Your task to perform on an android device: move an email to a new category in the gmail app Image 0: 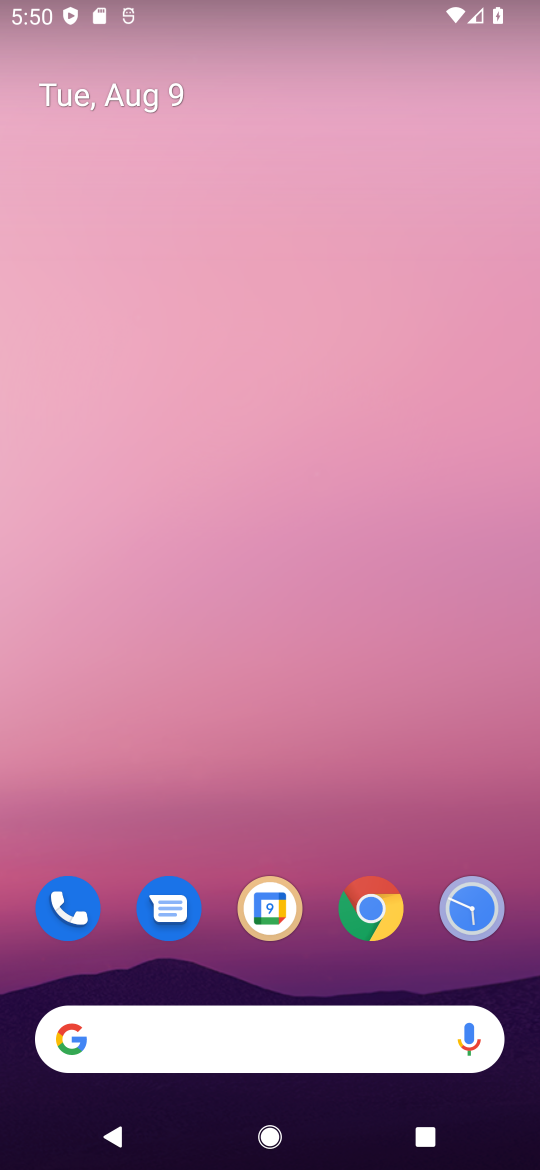
Step 0: drag from (304, 734) to (291, 16)
Your task to perform on an android device: move an email to a new category in the gmail app Image 1: 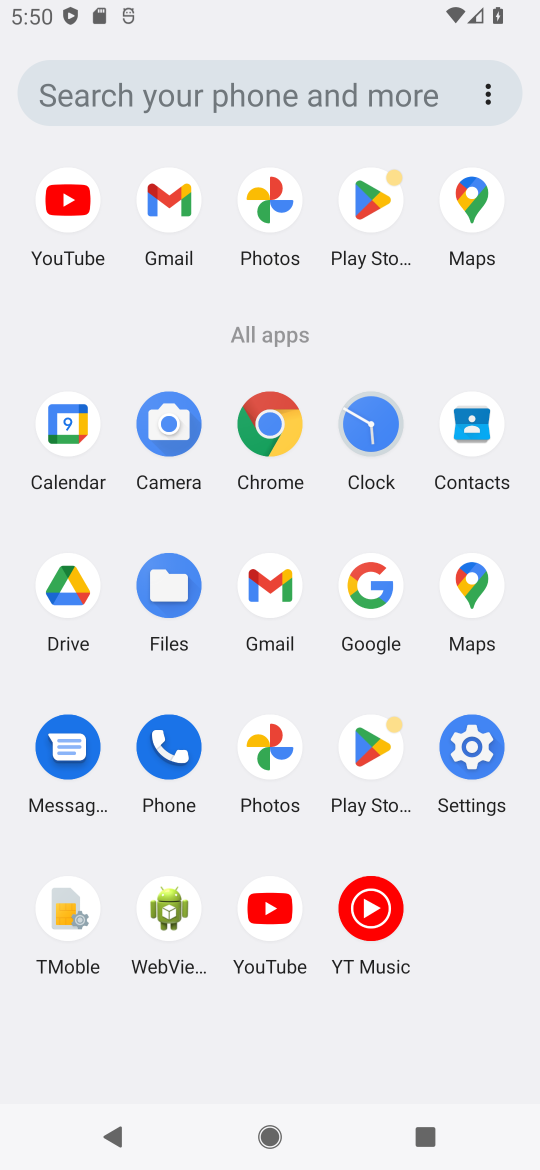
Step 1: click (187, 185)
Your task to perform on an android device: move an email to a new category in the gmail app Image 2: 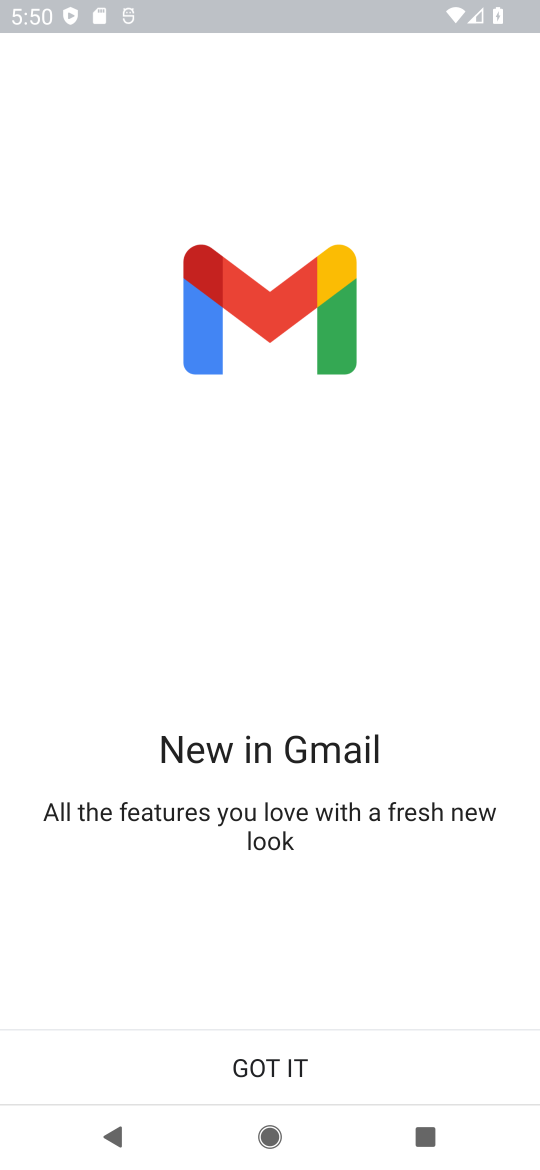
Step 2: click (361, 1085)
Your task to perform on an android device: move an email to a new category in the gmail app Image 3: 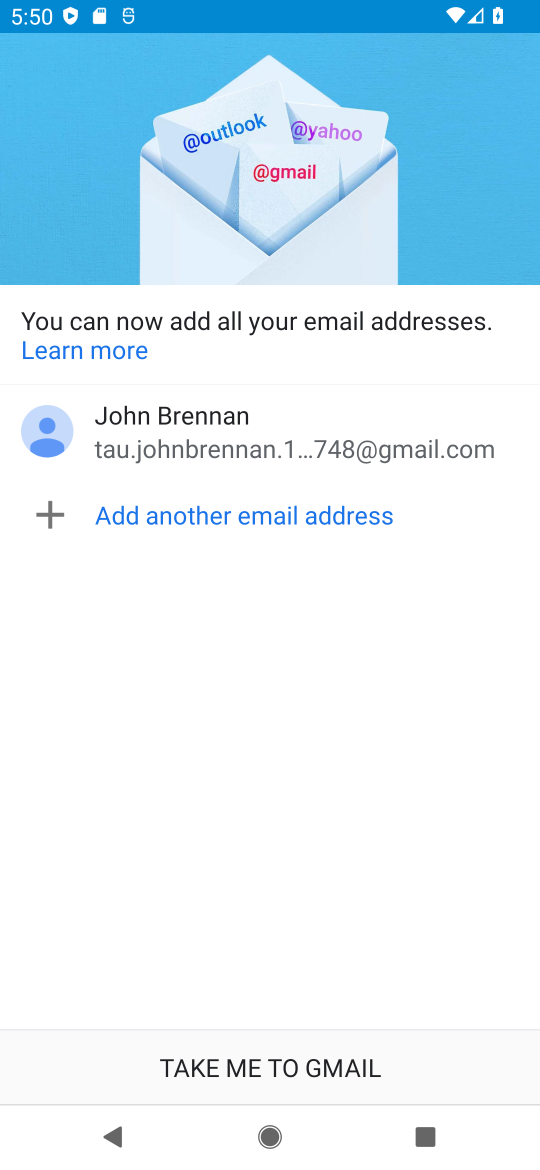
Step 3: click (365, 1074)
Your task to perform on an android device: move an email to a new category in the gmail app Image 4: 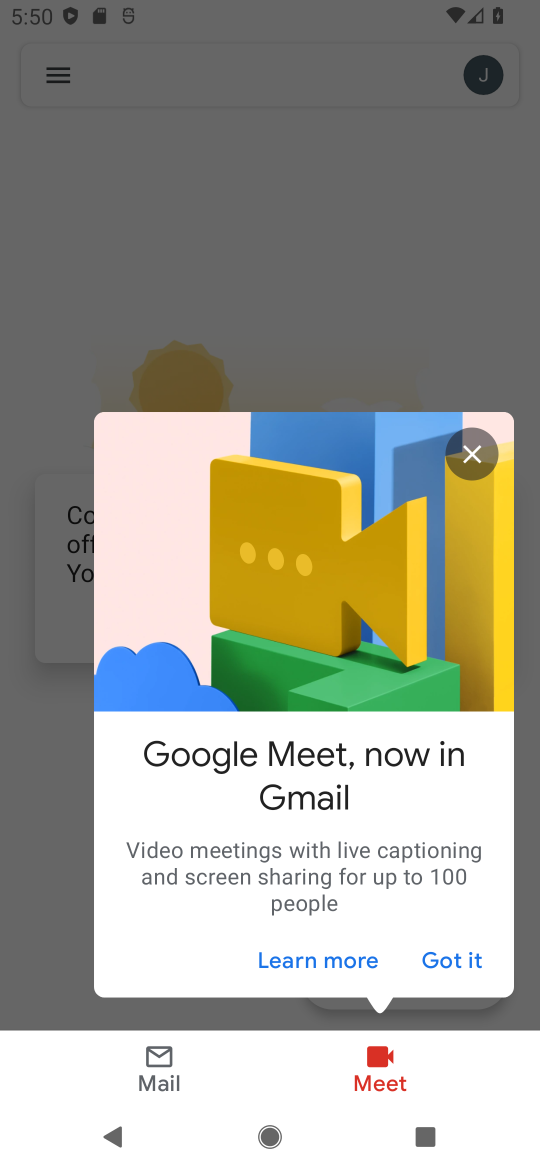
Step 4: click (460, 956)
Your task to perform on an android device: move an email to a new category in the gmail app Image 5: 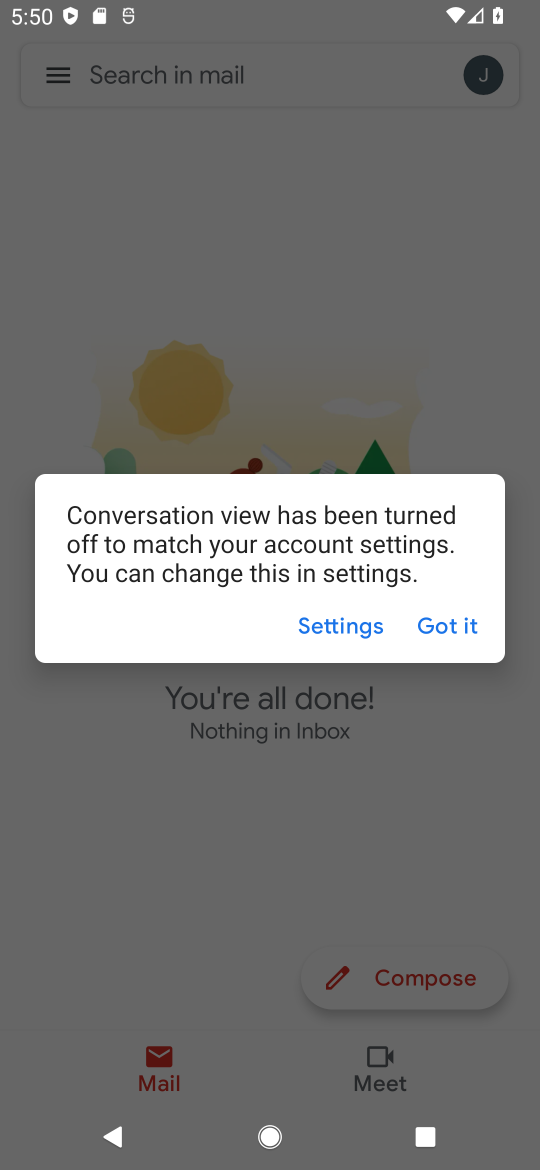
Step 5: click (470, 621)
Your task to perform on an android device: move an email to a new category in the gmail app Image 6: 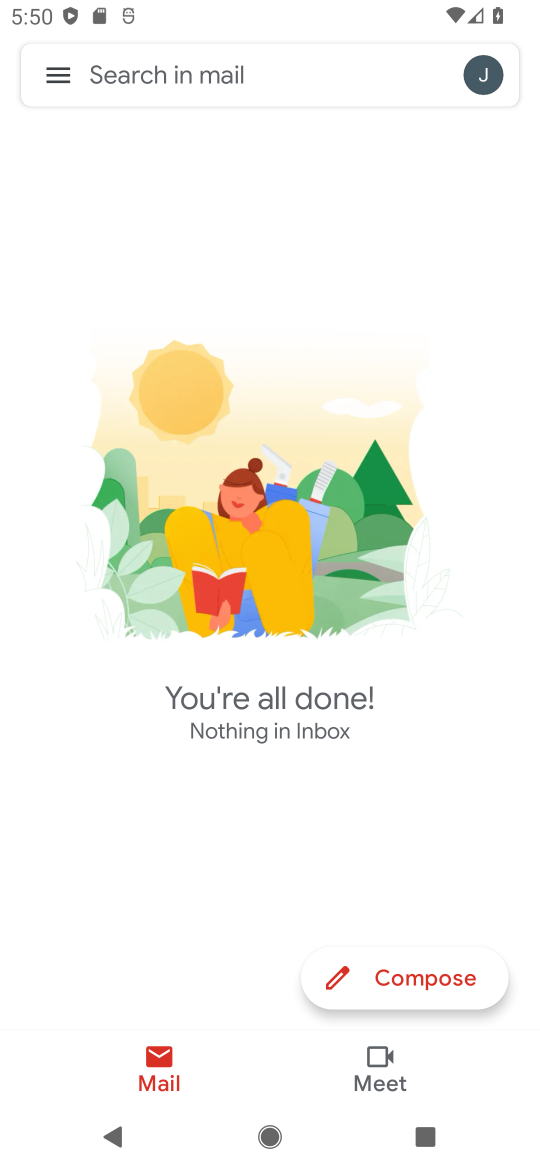
Step 6: click (54, 77)
Your task to perform on an android device: move an email to a new category in the gmail app Image 7: 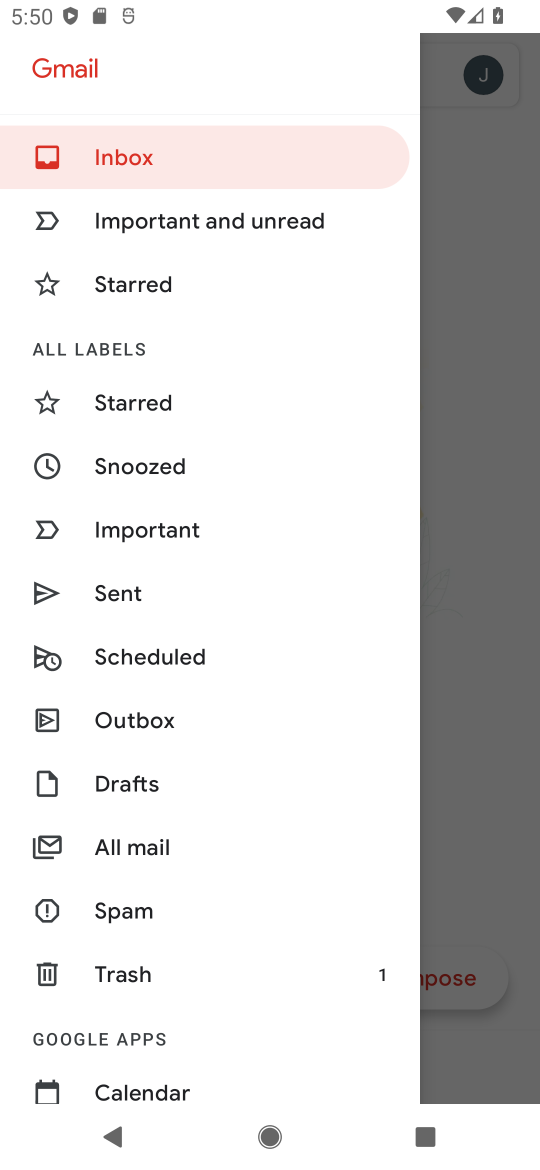
Step 7: click (156, 835)
Your task to perform on an android device: move an email to a new category in the gmail app Image 8: 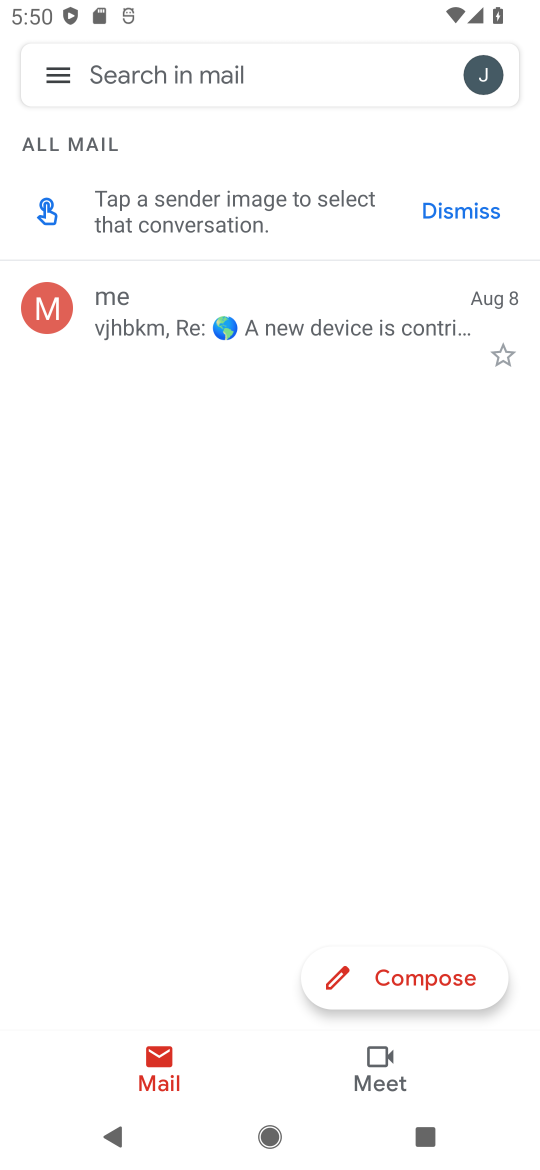
Step 8: click (330, 317)
Your task to perform on an android device: move an email to a new category in the gmail app Image 9: 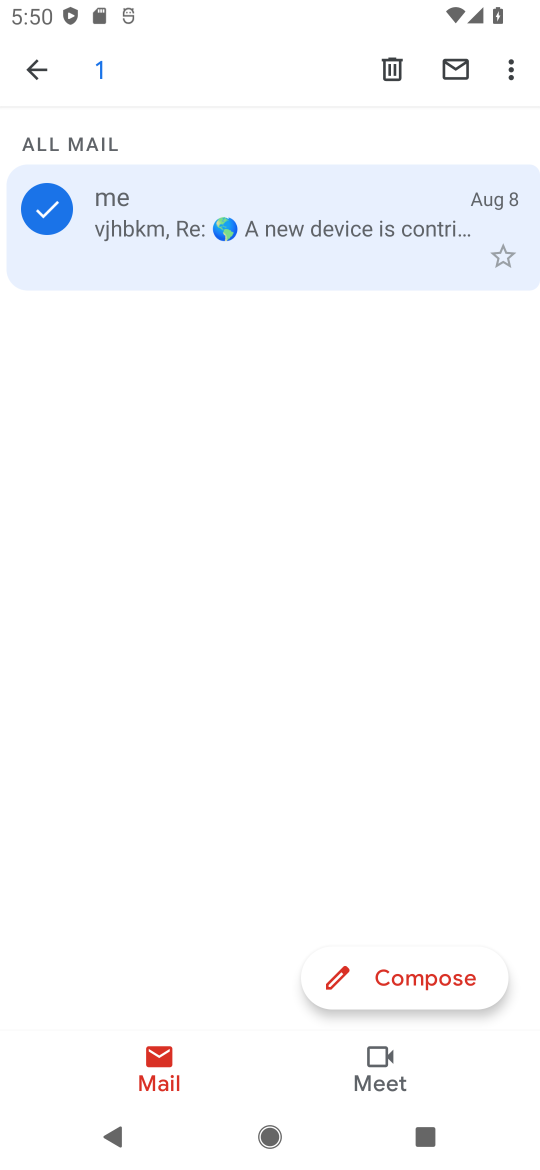
Step 9: click (509, 63)
Your task to perform on an android device: move an email to a new category in the gmail app Image 10: 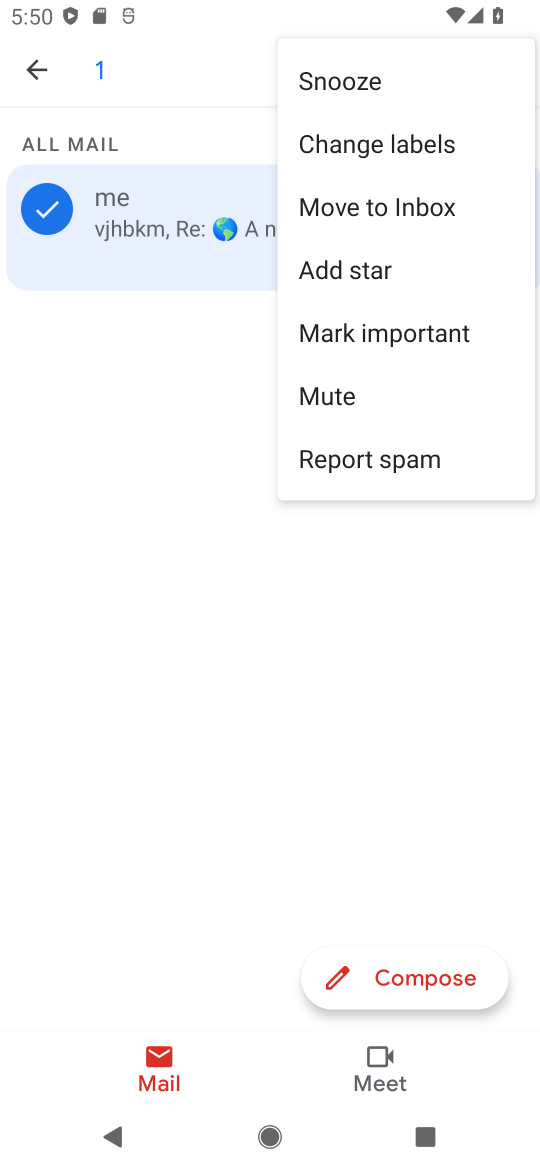
Step 10: click (442, 200)
Your task to perform on an android device: move an email to a new category in the gmail app Image 11: 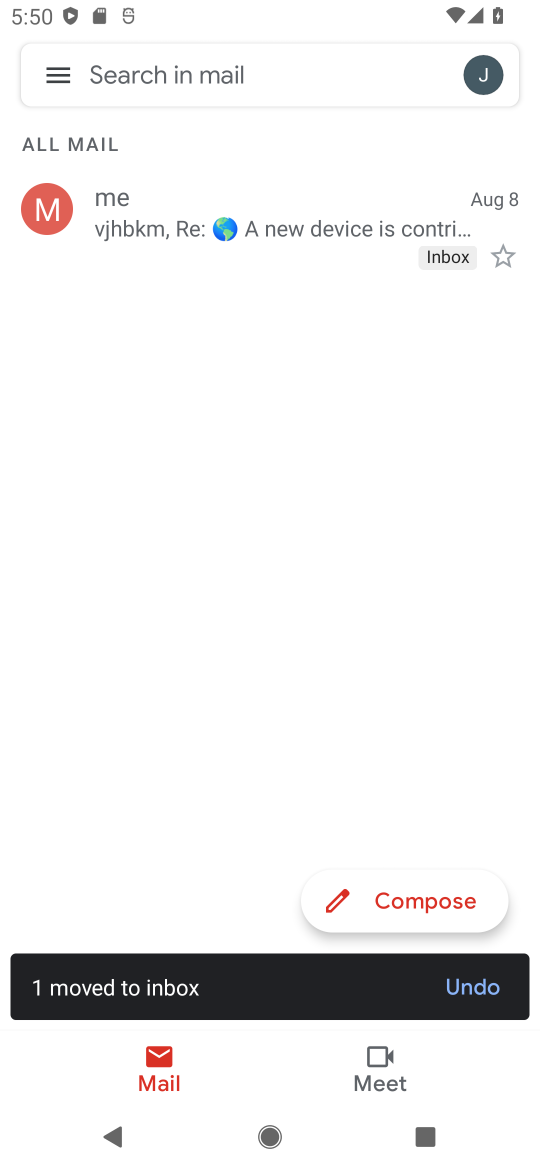
Step 11: task complete